Your task to perform on an android device: change alarm snooze length Image 0: 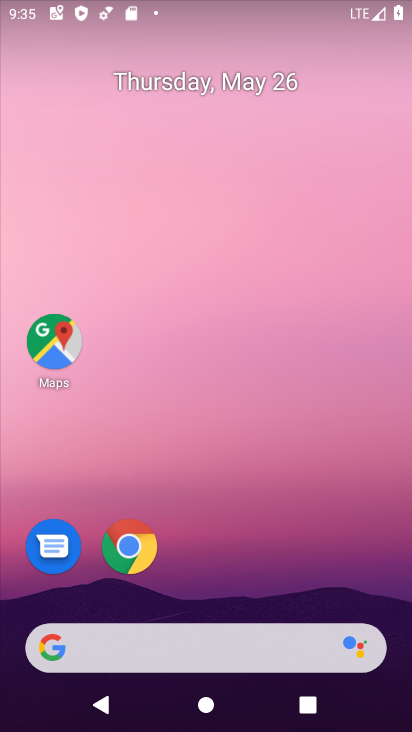
Step 0: drag from (317, 582) to (297, 205)
Your task to perform on an android device: change alarm snooze length Image 1: 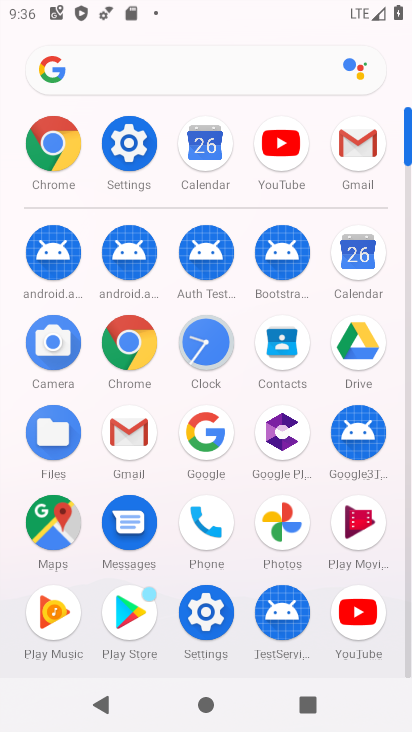
Step 1: click (205, 365)
Your task to perform on an android device: change alarm snooze length Image 2: 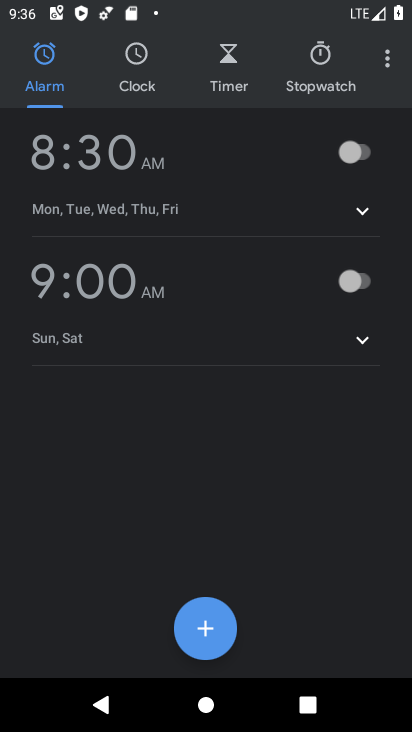
Step 2: drag from (393, 63) to (232, 112)
Your task to perform on an android device: change alarm snooze length Image 3: 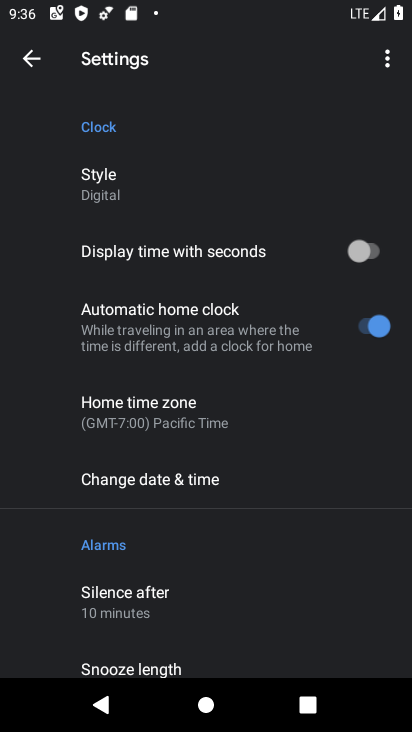
Step 3: drag from (259, 567) to (249, 312)
Your task to perform on an android device: change alarm snooze length Image 4: 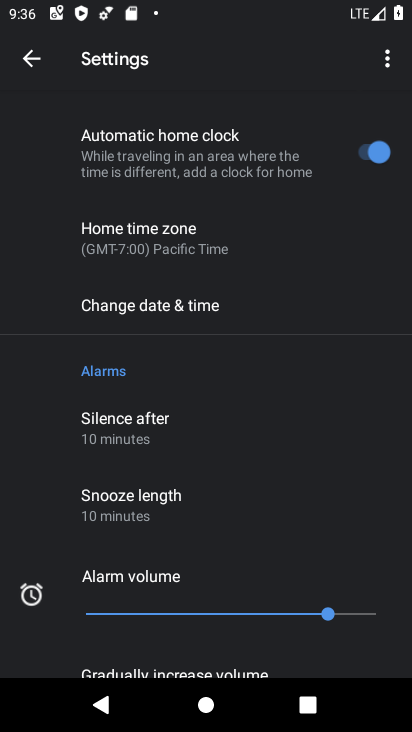
Step 4: click (191, 498)
Your task to perform on an android device: change alarm snooze length Image 5: 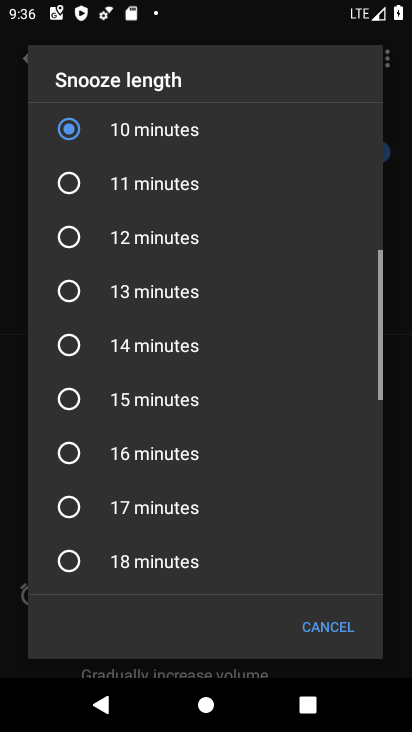
Step 5: click (118, 344)
Your task to perform on an android device: change alarm snooze length Image 6: 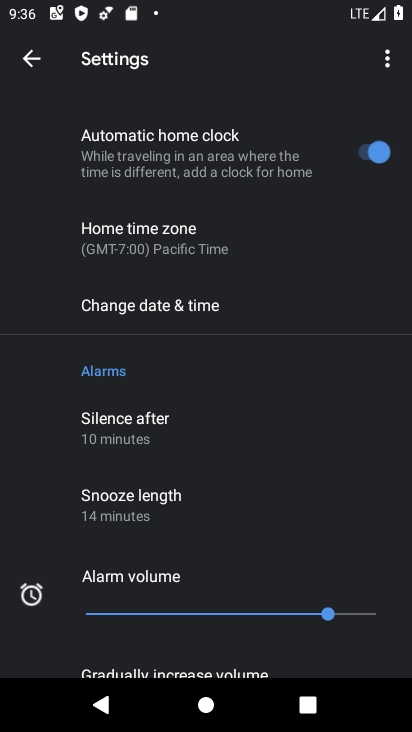
Step 6: task complete